Your task to perform on an android device: change the clock display to show seconds Image 0: 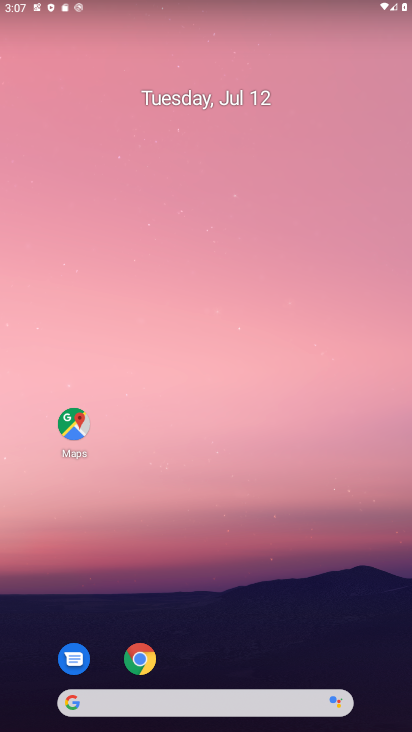
Step 0: drag from (227, 726) to (224, 691)
Your task to perform on an android device: change the clock display to show seconds Image 1: 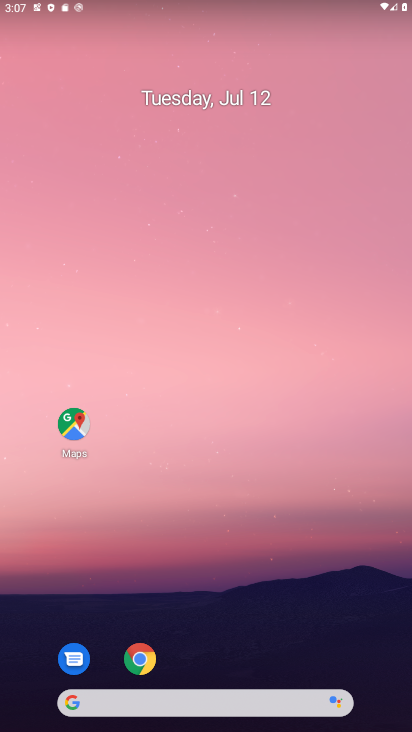
Step 1: drag from (224, 396) to (221, 195)
Your task to perform on an android device: change the clock display to show seconds Image 2: 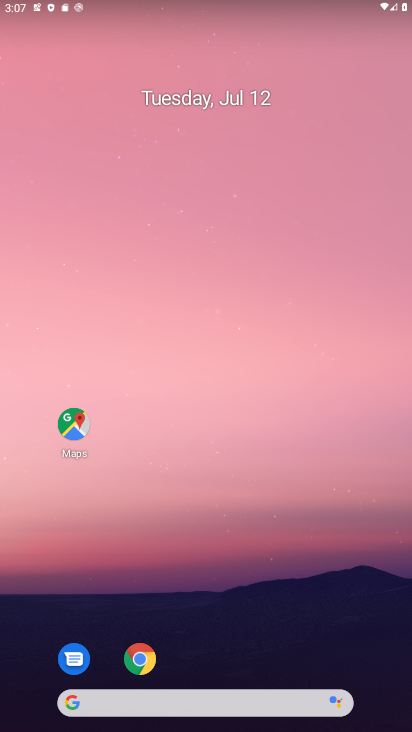
Step 2: drag from (262, 723) to (260, 137)
Your task to perform on an android device: change the clock display to show seconds Image 3: 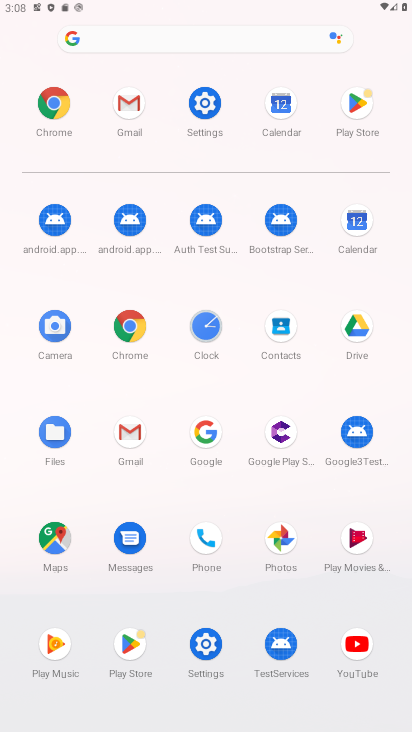
Step 3: click (207, 326)
Your task to perform on an android device: change the clock display to show seconds Image 4: 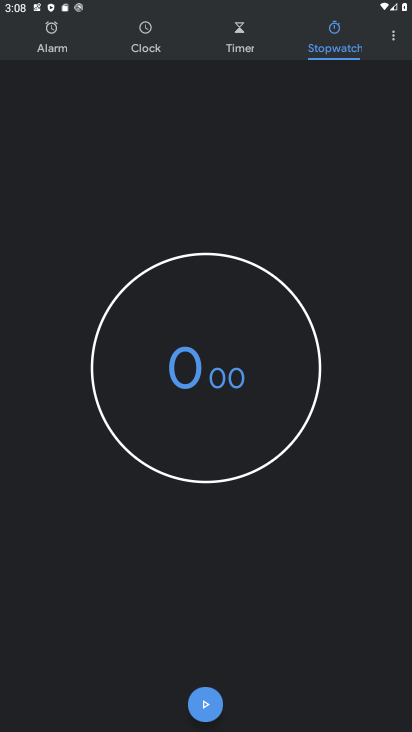
Step 4: click (394, 37)
Your task to perform on an android device: change the clock display to show seconds Image 5: 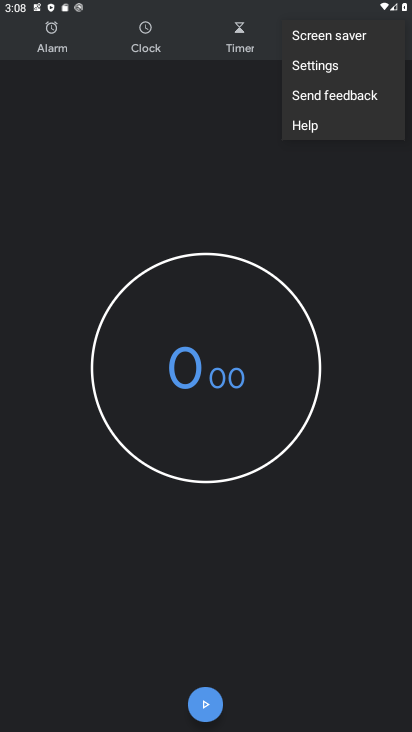
Step 5: click (325, 65)
Your task to perform on an android device: change the clock display to show seconds Image 6: 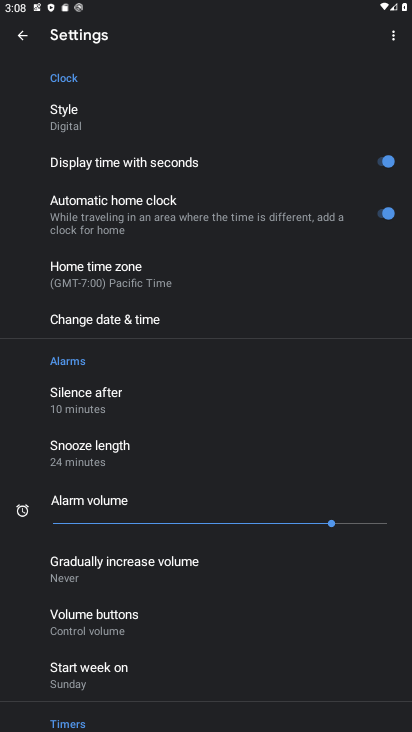
Step 6: task complete